Your task to perform on an android device: check battery use Image 0: 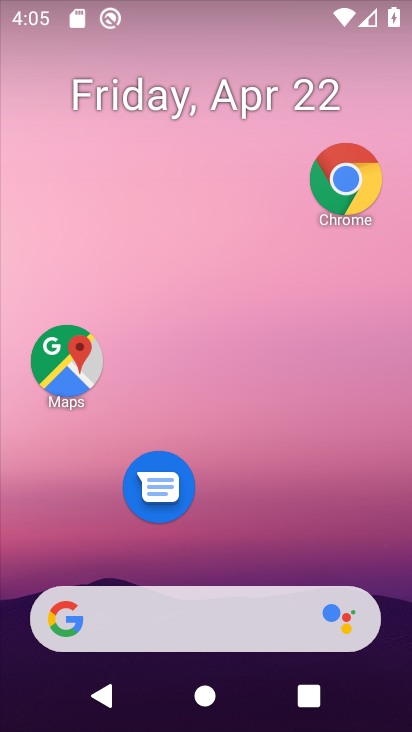
Step 0: drag from (254, 563) to (288, 10)
Your task to perform on an android device: check battery use Image 1: 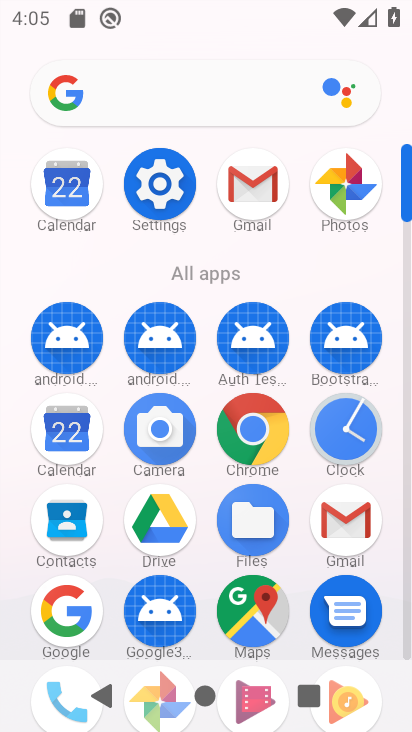
Step 1: click (138, 179)
Your task to perform on an android device: check battery use Image 2: 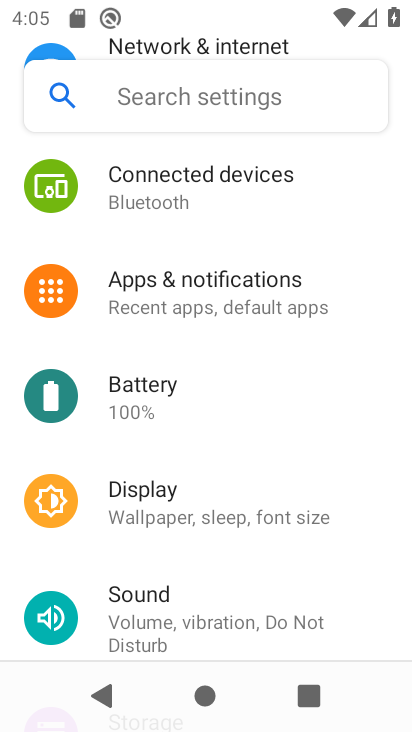
Step 2: click (204, 404)
Your task to perform on an android device: check battery use Image 3: 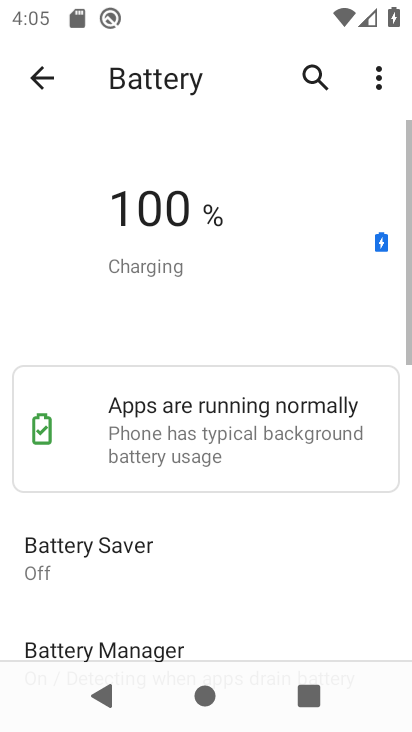
Step 3: click (382, 83)
Your task to perform on an android device: check battery use Image 4: 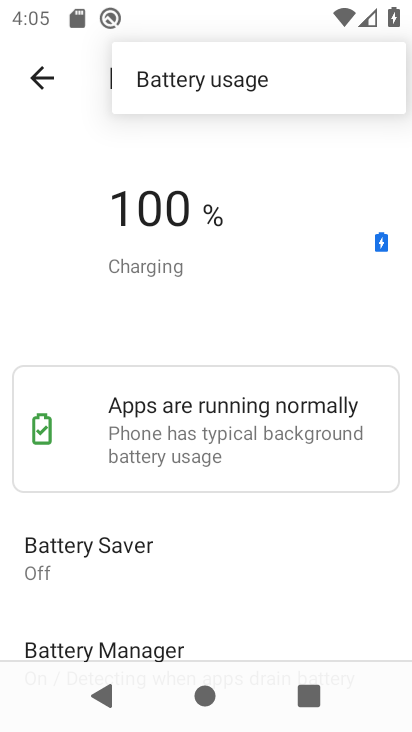
Step 4: click (325, 85)
Your task to perform on an android device: check battery use Image 5: 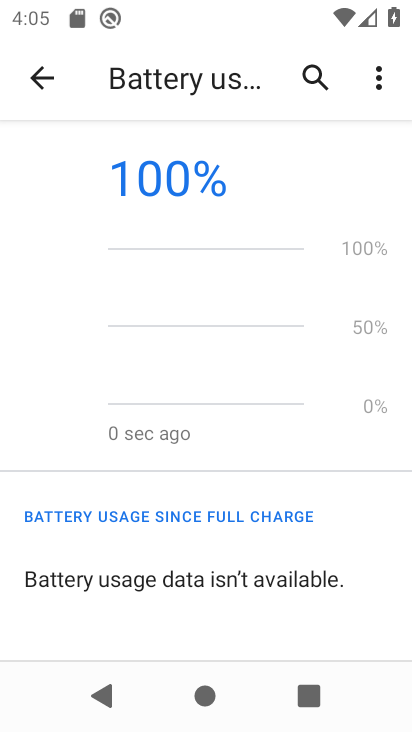
Step 5: task complete